Your task to perform on an android device: delete browsing data in the chrome app Image 0: 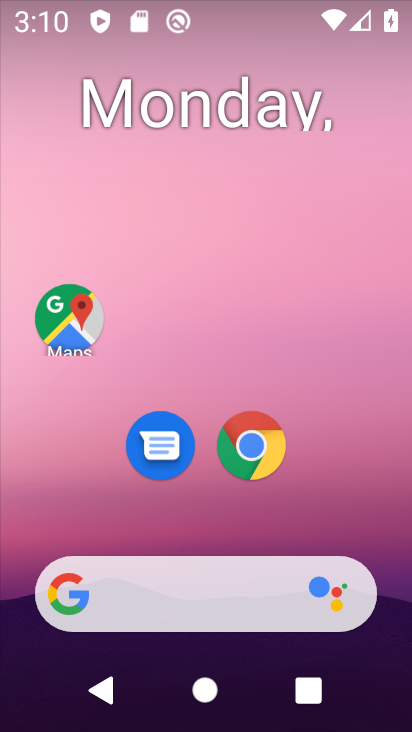
Step 0: drag from (230, 524) to (224, 117)
Your task to perform on an android device: delete browsing data in the chrome app Image 1: 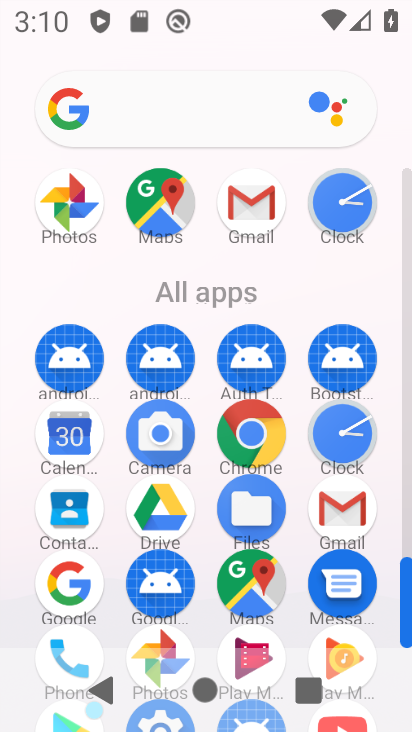
Step 1: click (265, 430)
Your task to perform on an android device: delete browsing data in the chrome app Image 2: 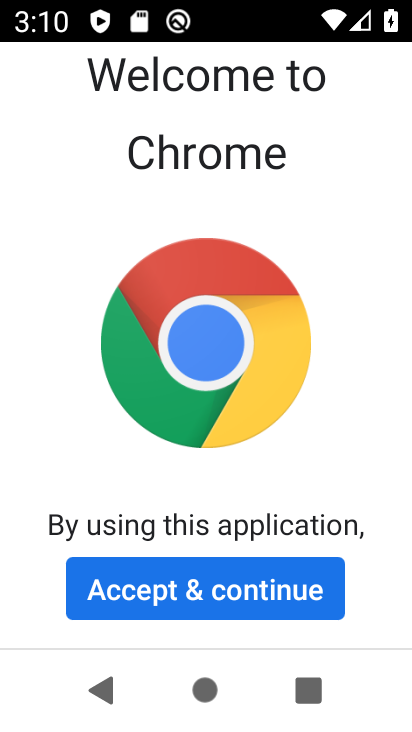
Step 2: click (245, 585)
Your task to perform on an android device: delete browsing data in the chrome app Image 3: 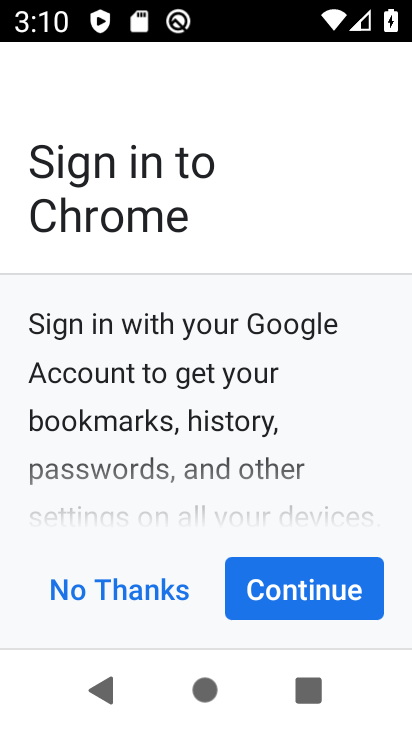
Step 3: click (279, 594)
Your task to perform on an android device: delete browsing data in the chrome app Image 4: 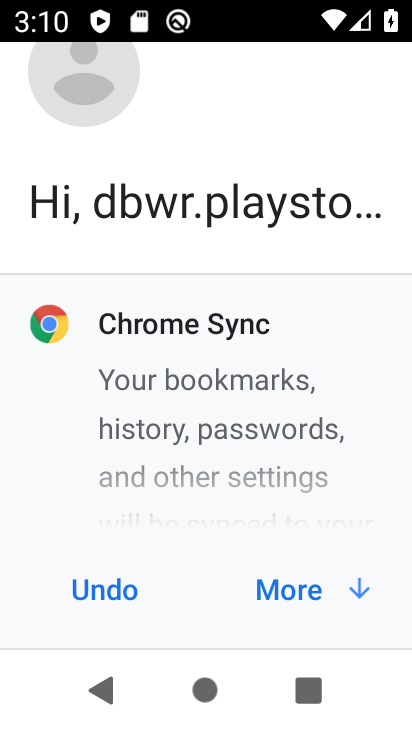
Step 4: click (281, 594)
Your task to perform on an android device: delete browsing data in the chrome app Image 5: 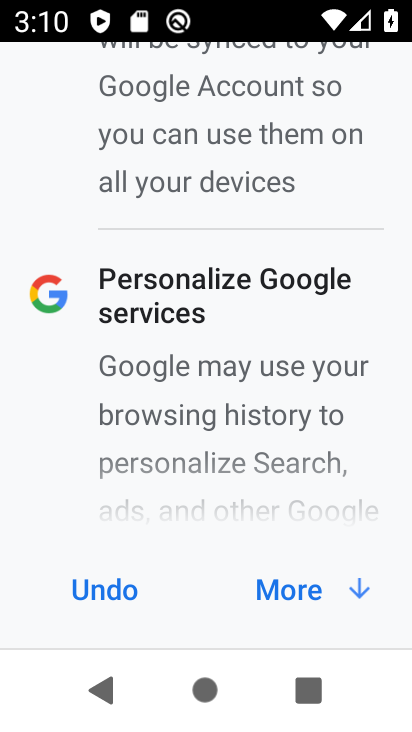
Step 5: click (282, 594)
Your task to perform on an android device: delete browsing data in the chrome app Image 6: 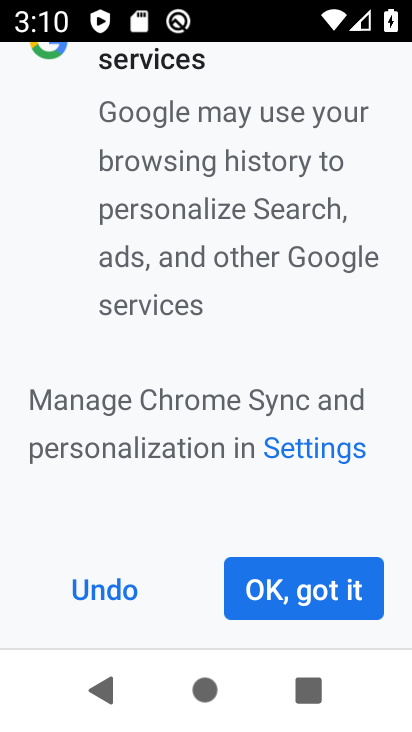
Step 6: click (283, 595)
Your task to perform on an android device: delete browsing data in the chrome app Image 7: 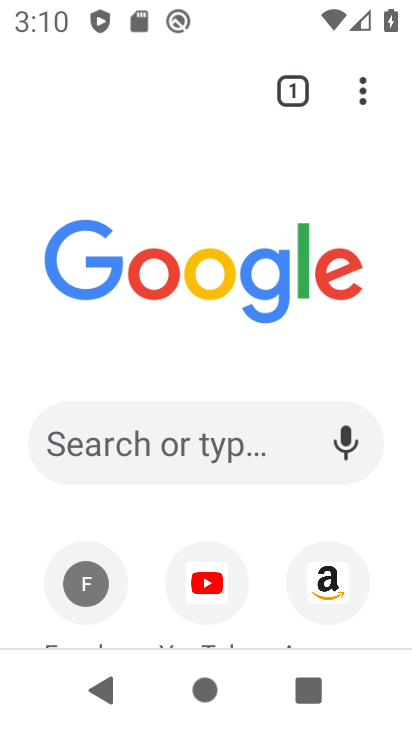
Step 7: click (367, 98)
Your task to perform on an android device: delete browsing data in the chrome app Image 8: 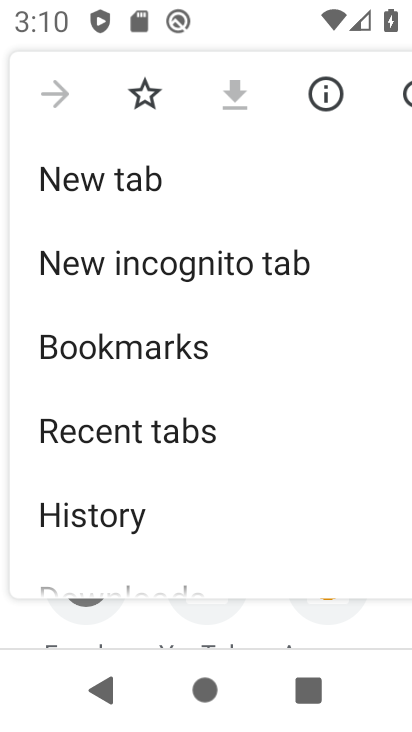
Step 8: drag from (155, 528) to (206, 197)
Your task to perform on an android device: delete browsing data in the chrome app Image 9: 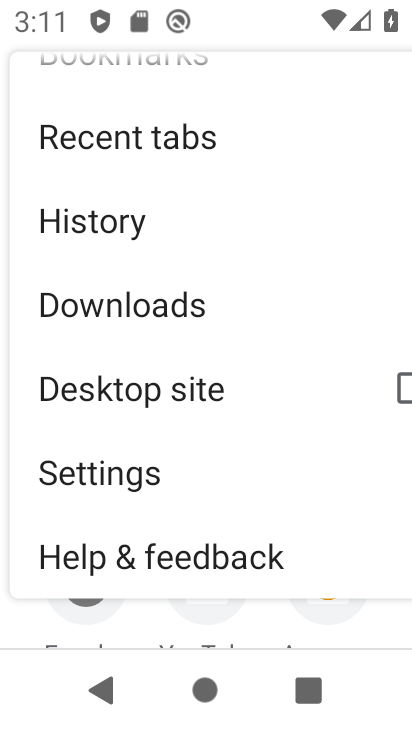
Step 9: click (112, 232)
Your task to perform on an android device: delete browsing data in the chrome app Image 10: 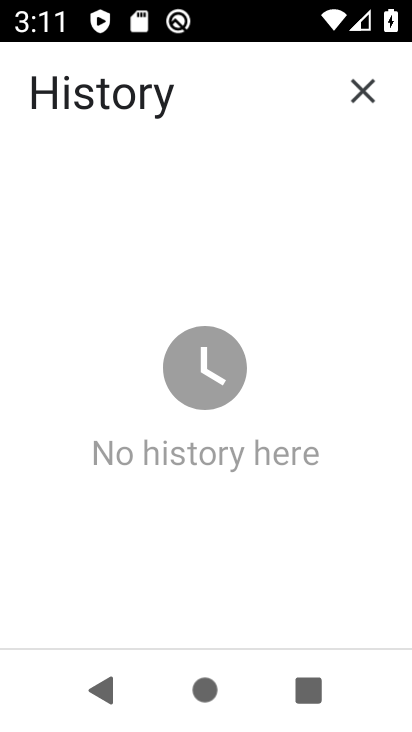
Step 10: task complete